Your task to perform on an android device: choose inbox layout in the gmail app Image 0: 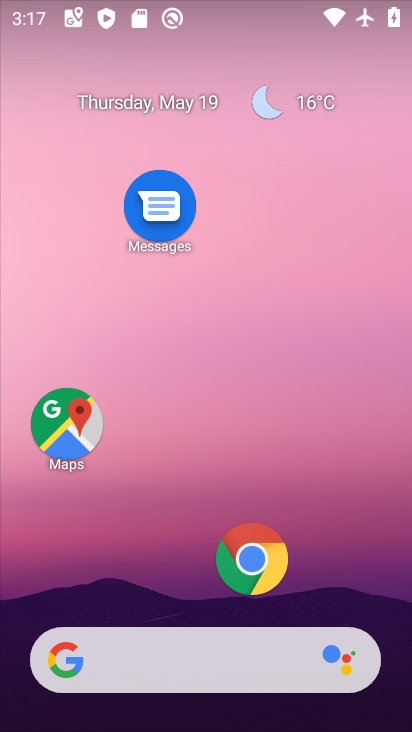
Step 0: drag from (173, 604) to (210, 221)
Your task to perform on an android device: choose inbox layout in the gmail app Image 1: 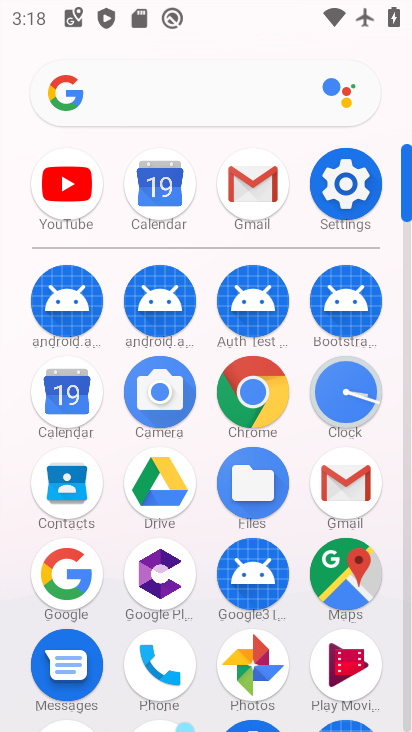
Step 1: click (367, 492)
Your task to perform on an android device: choose inbox layout in the gmail app Image 2: 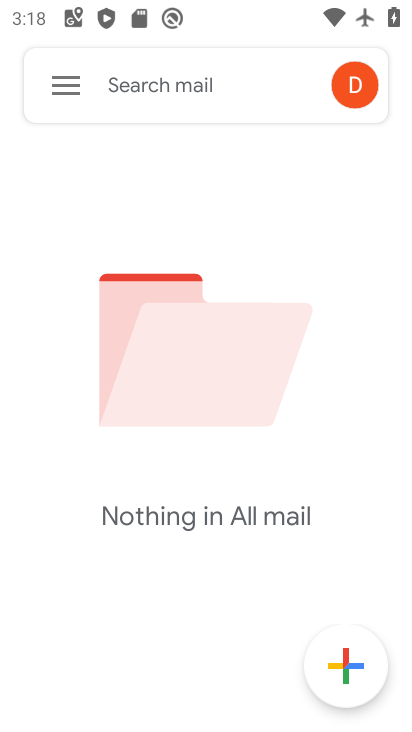
Step 2: click (69, 93)
Your task to perform on an android device: choose inbox layout in the gmail app Image 3: 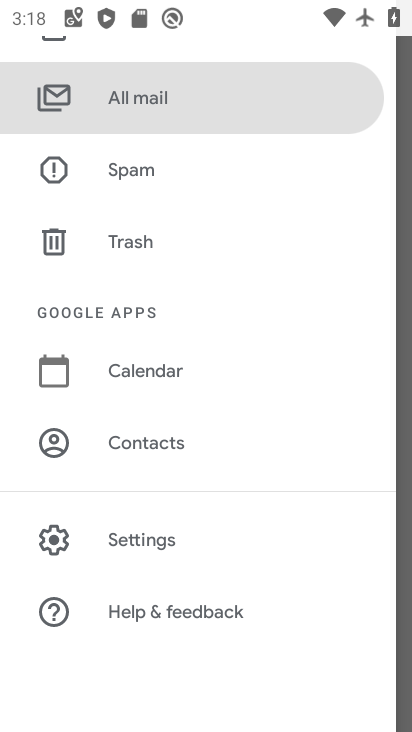
Step 3: click (149, 551)
Your task to perform on an android device: choose inbox layout in the gmail app Image 4: 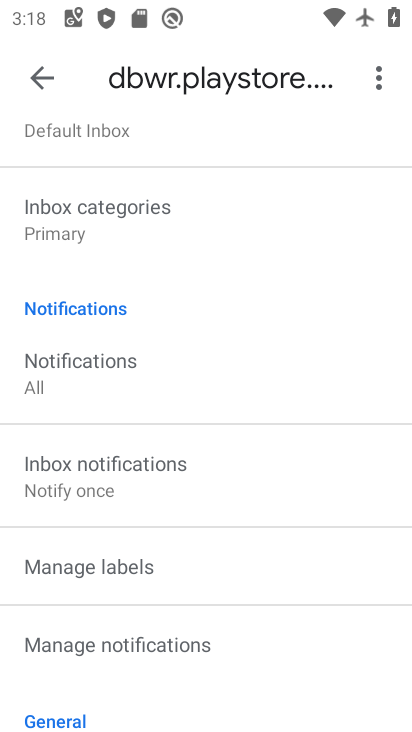
Step 4: drag from (168, 237) to (190, 483)
Your task to perform on an android device: choose inbox layout in the gmail app Image 5: 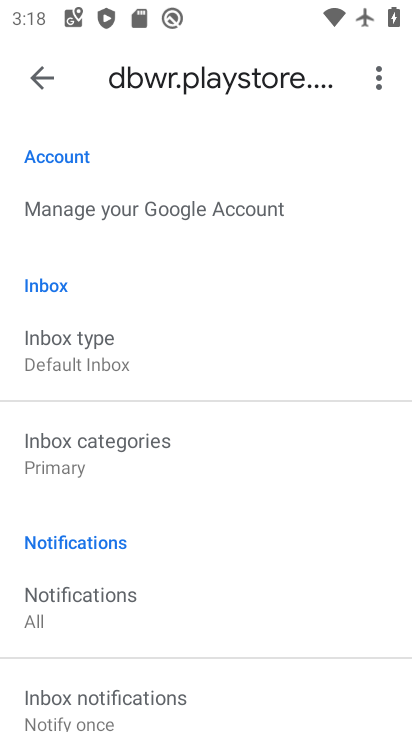
Step 5: drag from (177, 296) to (209, 555)
Your task to perform on an android device: choose inbox layout in the gmail app Image 6: 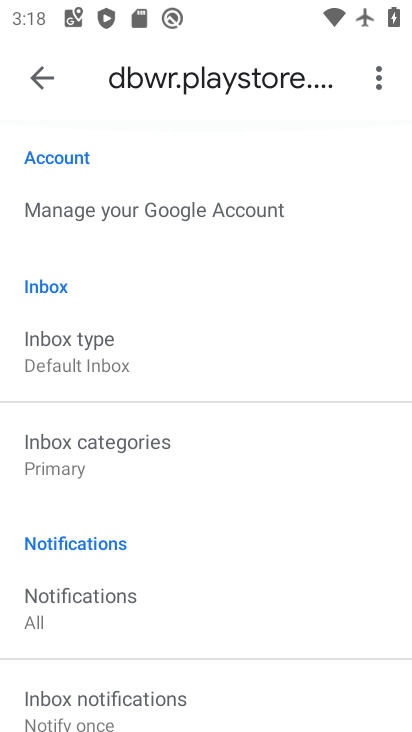
Step 6: click (128, 355)
Your task to perform on an android device: choose inbox layout in the gmail app Image 7: 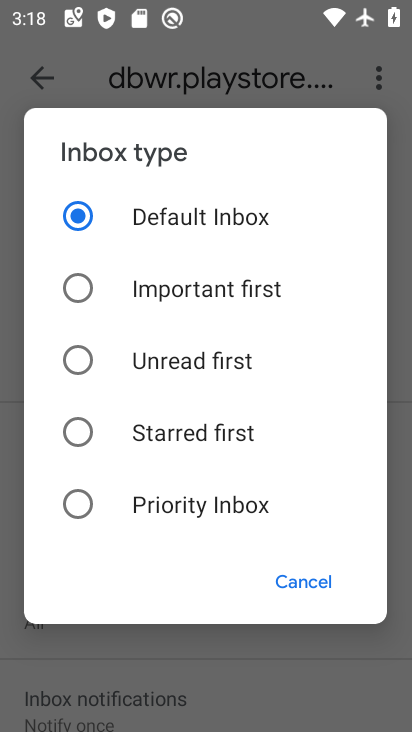
Step 7: click (163, 513)
Your task to perform on an android device: choose inbox layout in the gmail app Image 8: 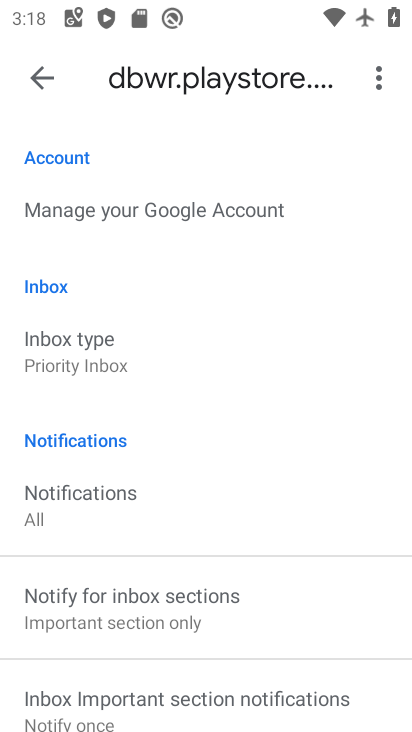
Step 8: task complete